Your task to perform on an android device: toggle sleep mode Image 0: 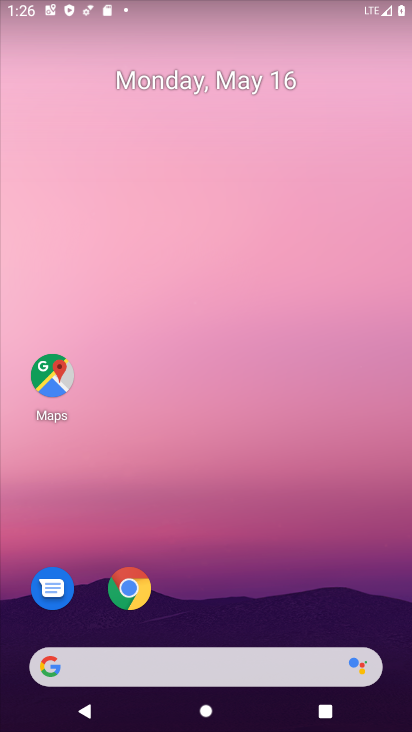
Step 0: drag from (224, 587) to (336, 110)
Your task to perform on an android device: toggle sleep mode Image 1: 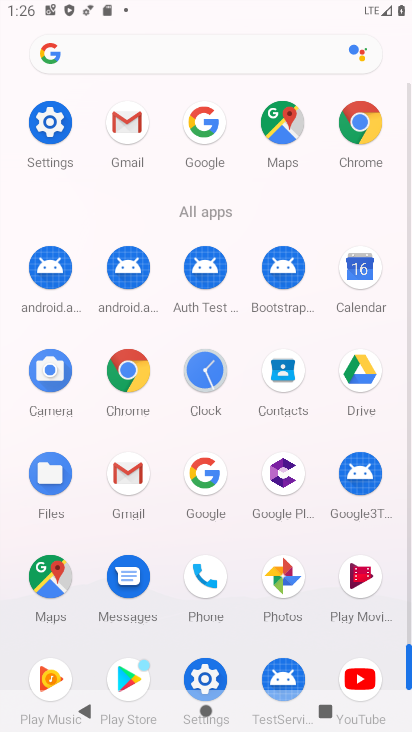
Step 1: drag from (158, 532) to (168, 371)
Your task to perform on an android device: toggle sleep mode Image 2: 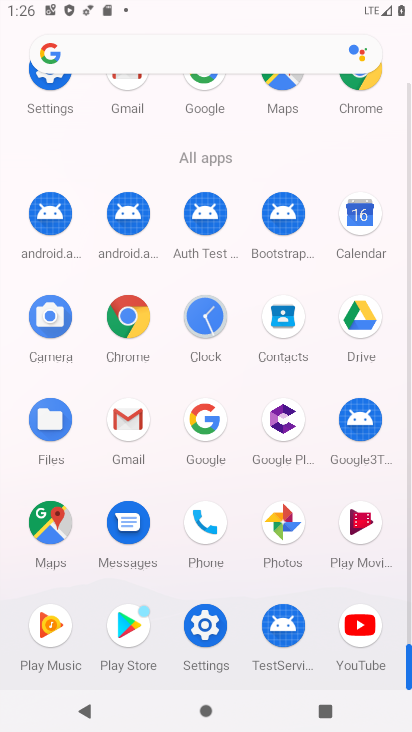
Step 2: drag from (174, 227) to (208, 406)
Your task to perform on an android device: toggle sleep mode Image 3: 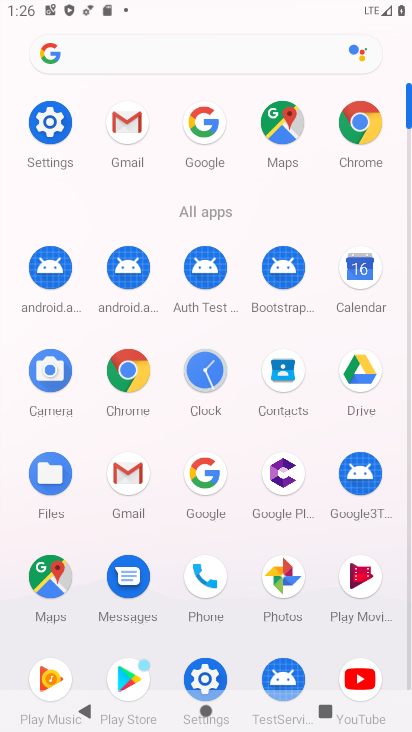
Step 3: drag from (237, 629) to (248, 462)
Your task to perform on an android device: toggle sleep mode Image 4: 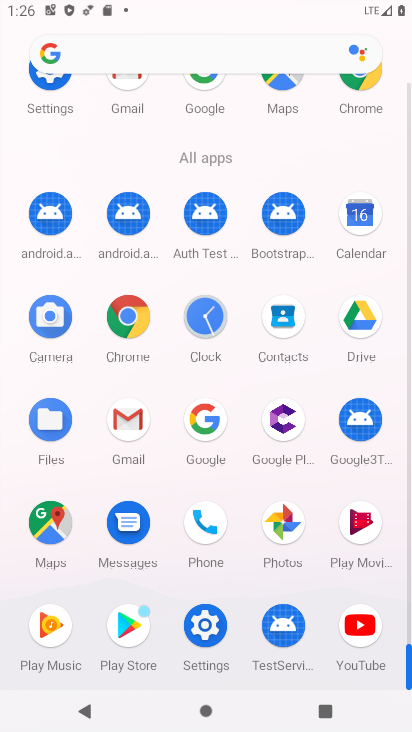
Step 4: click (202, 623)
Your task to perform on an android device: toggle sleep mode Image 5: 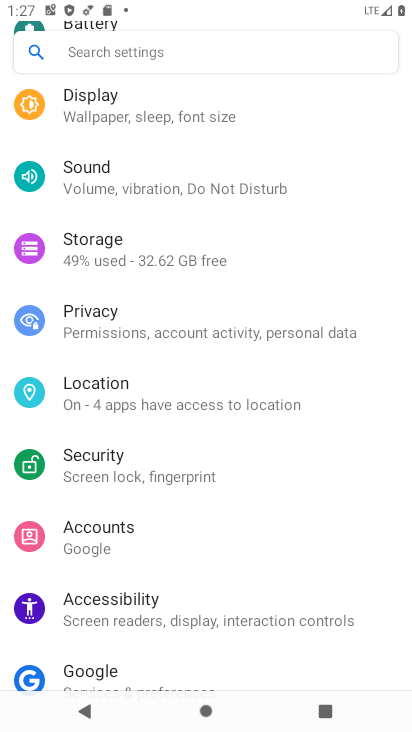
Step 5: drag from (210, 606) to (255, 504)
Your task to perform on an android device: toggle sleep mode Image 6: 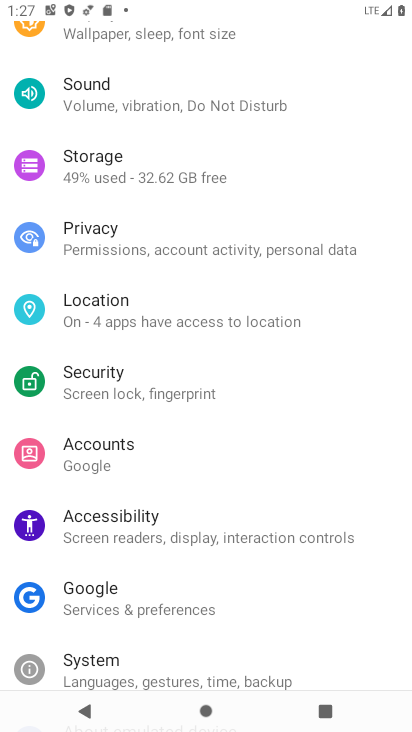
Step 6: drag from (166, 512) to (214, 443)
Your task to perform on an android device: toggle sleep mode Image 7: 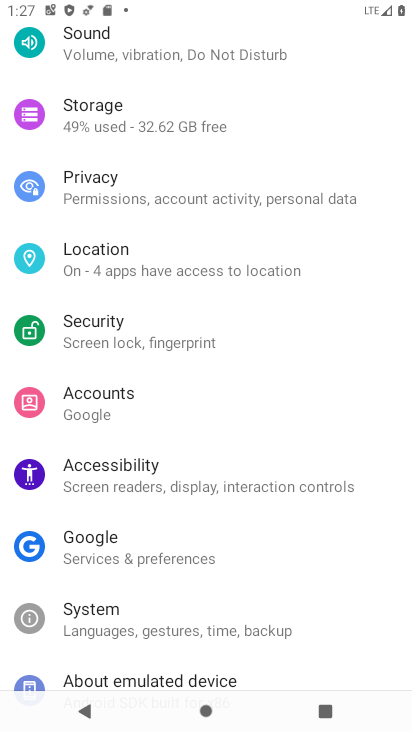
Step 7: drag from (154, 330) to (191, 434)
Your task to perform on an android device: toggle sleep mode Image 8: 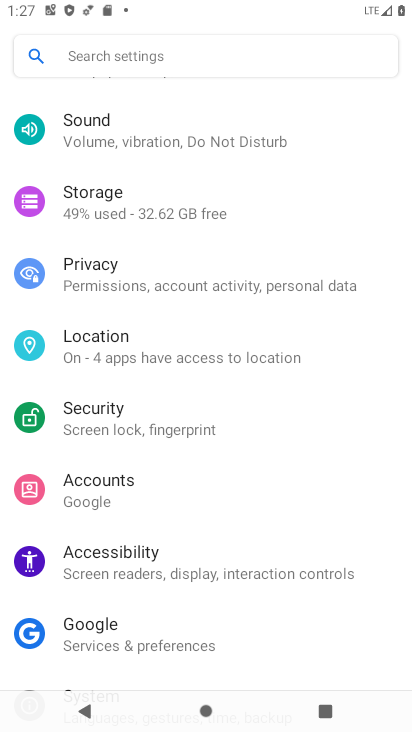
Step 8: drag from (182, 276) to (200, 331)
Your task to perform on an android device: toggle sleep mode Image 9: 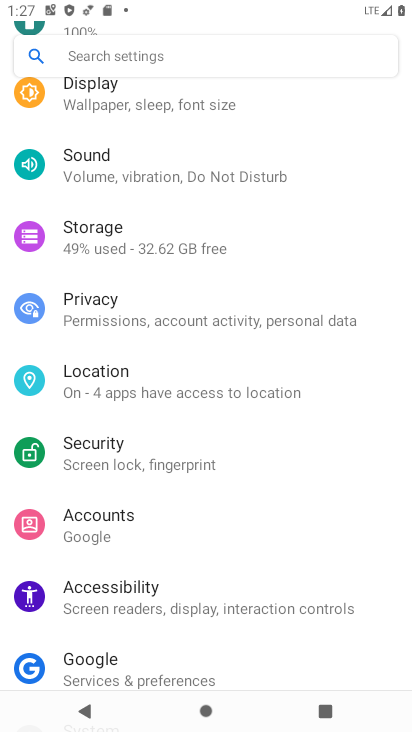
Step 9: drag from (189, 368) to (201, 458)
Your task to perform on an android device: toggle sleep mode Image 10: 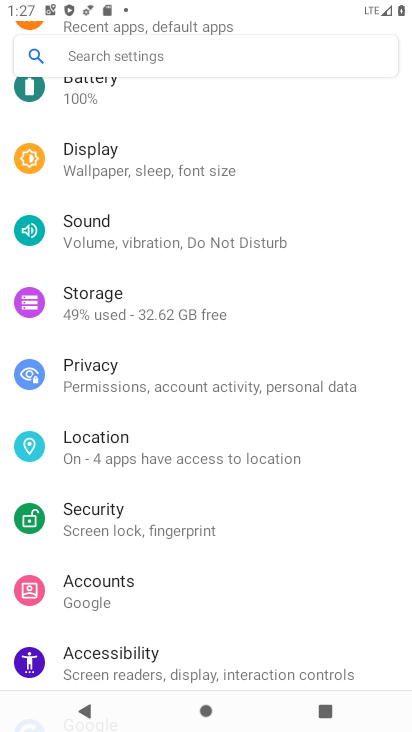
Step 10: drag from (207, 290) to (233, 383)
Your task to perform on an android device: toggle sleep mode Image 11: 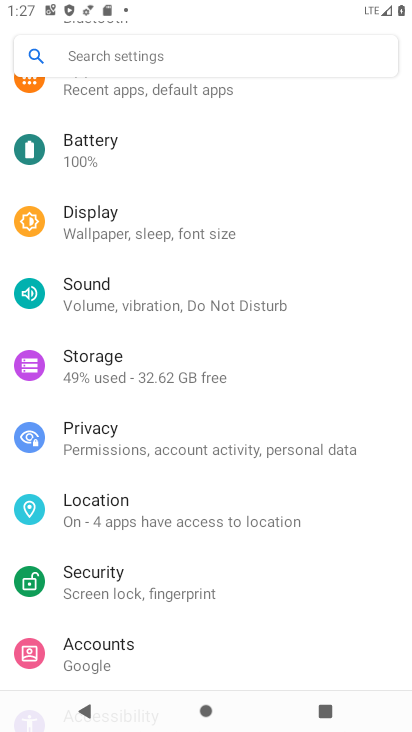
Step 11: click (198, 250)
Your task to perform on an android device: toggle sleep mode Image 12: 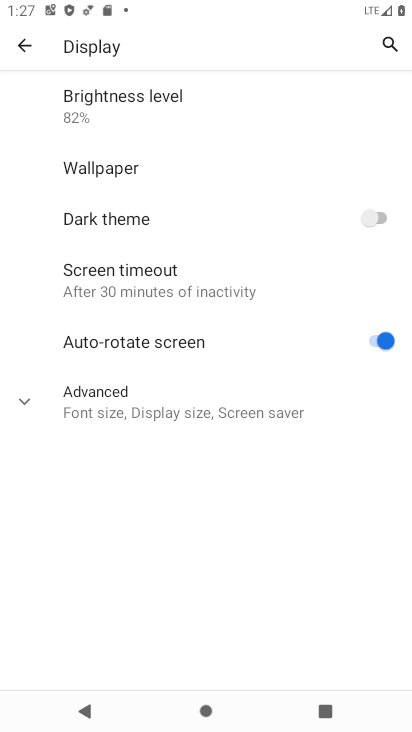
Step 12: click (166, 406)
Your task to perform on an android device: toggle sleep mode Image 13: 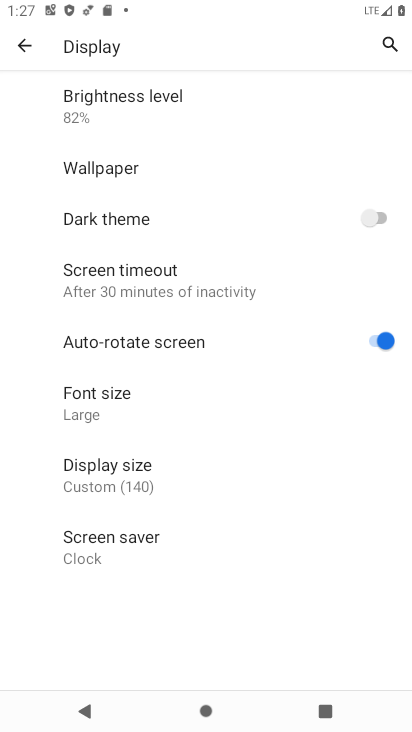
Step 13: task complete